Your task to perform on an android device: Go to Yahoo.com Image 0: 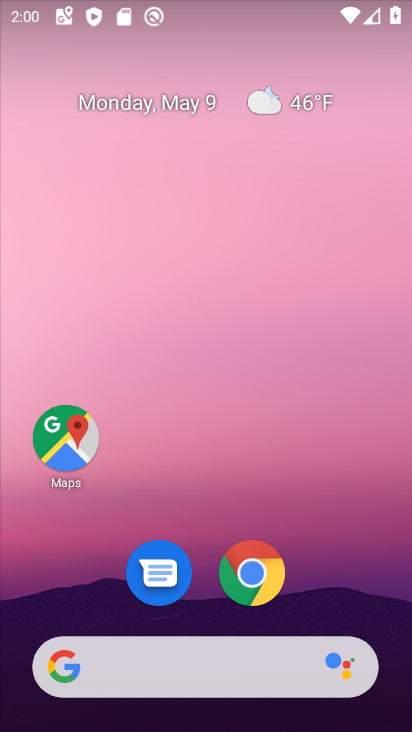
Step 0: click (201, 592)
Your task to perform on an android device: Go to Yahoo.com Image 1: 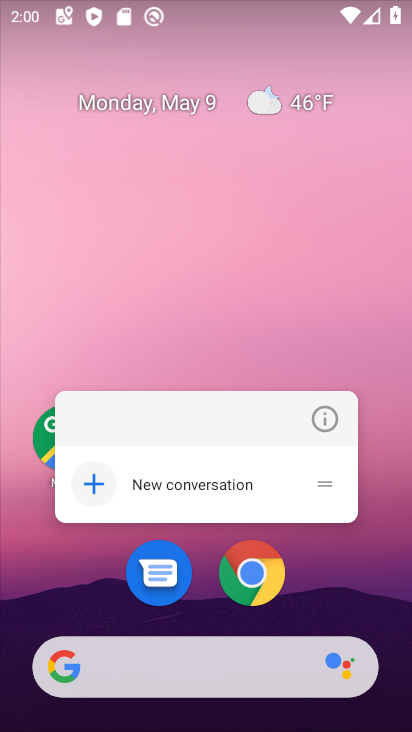
Step 1: click (253, 578)
Your task to perform on an android device: Go to Yahoo.com Image 2: 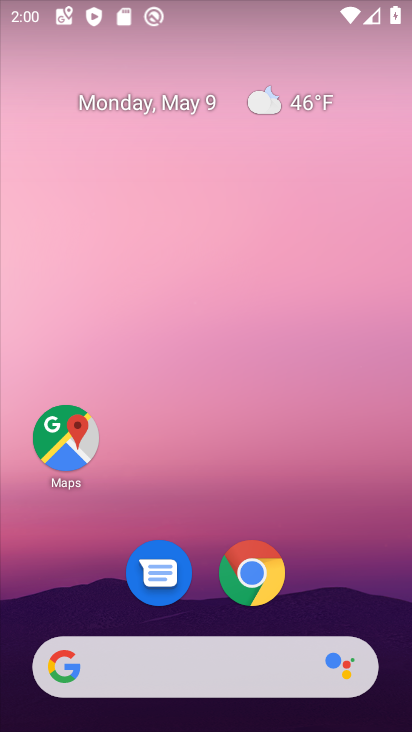
Step 2: click (253, 576)
Your task to perform on an android device: Go to Yahoo.com Image 3: 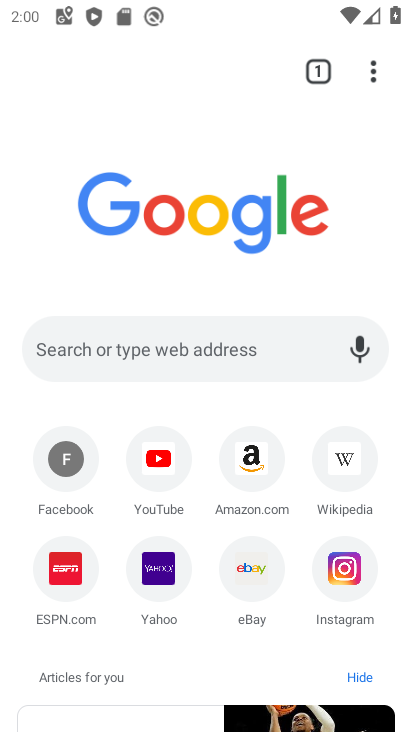
Step 3: click (154, 579)
Your task to perform on an android device: Go to Yahoo.com Image 4: 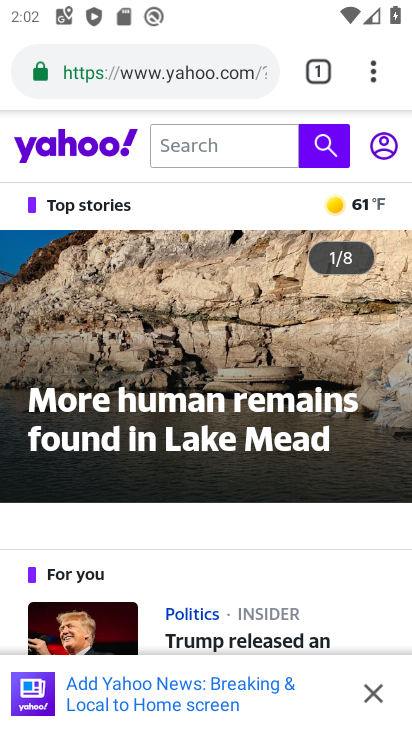
Step 4: task complete